Your task to perform on an android device: Open Chrome and go to settings Image 0: 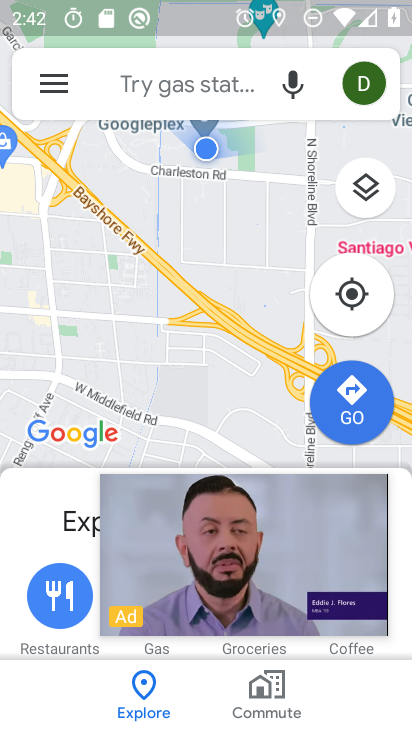
Step 0: click (333, 514)
Your task to perform on an android device: Open Chrome and go to settings Image 1: 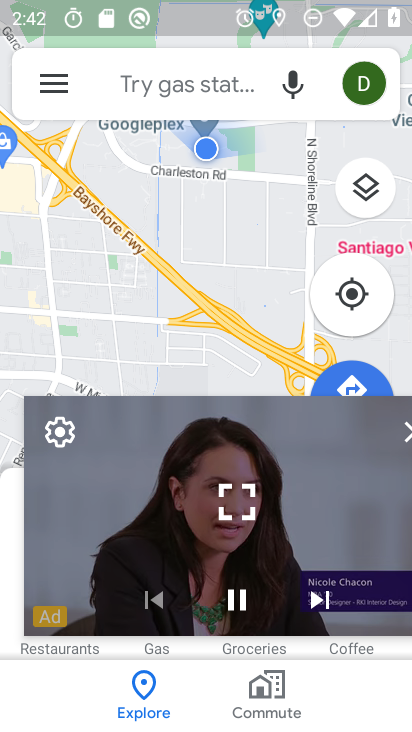
Step 1: click (405, 428)
Your task to perform on an android device: Open Chrome and go to settings Image 2: 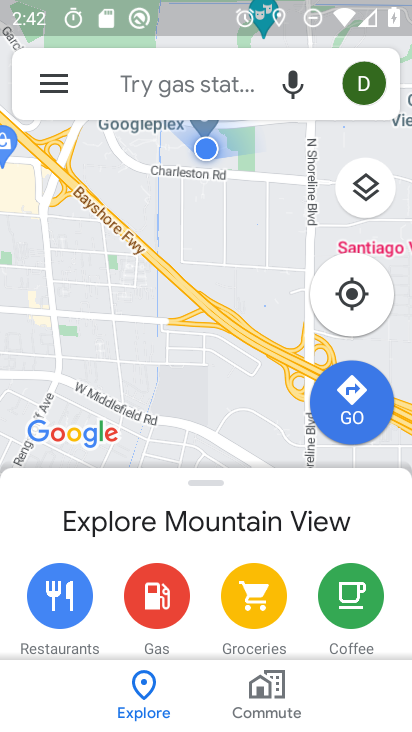
Step 2: press home button
Your task to perform on an android device: Open Chrome and go to settings Image 3: 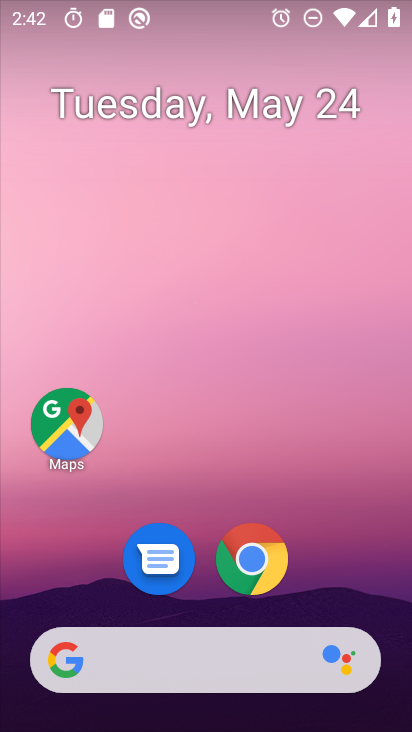
Step 3: click (246, 545)
Your task to perform on an android device: Open Chrome and go to settings Image 4: 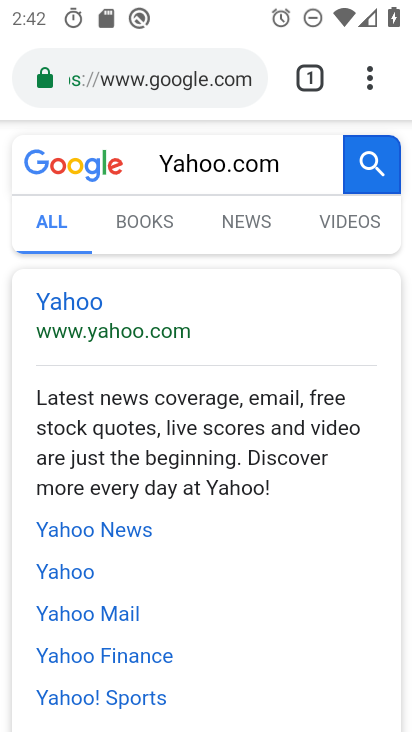
Step 4: click (369, 76)
Your task to perform on an android device: Open Chrome and go to settings Image 5: 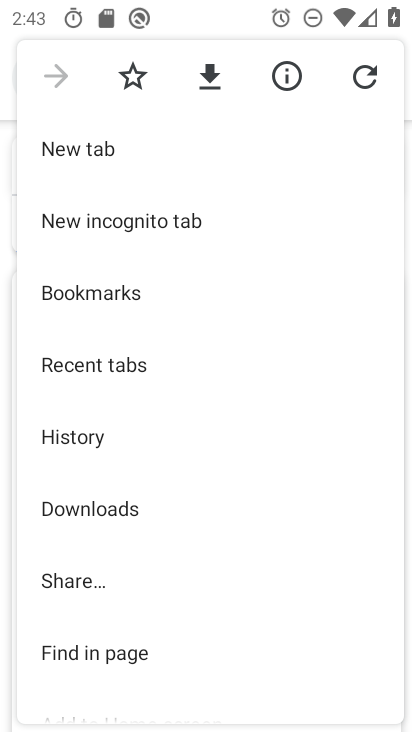
Step 5: drag from (248, 666) to (235, 321)
Your task to perform on an android device: Open Chrome and go to settings Image 6: 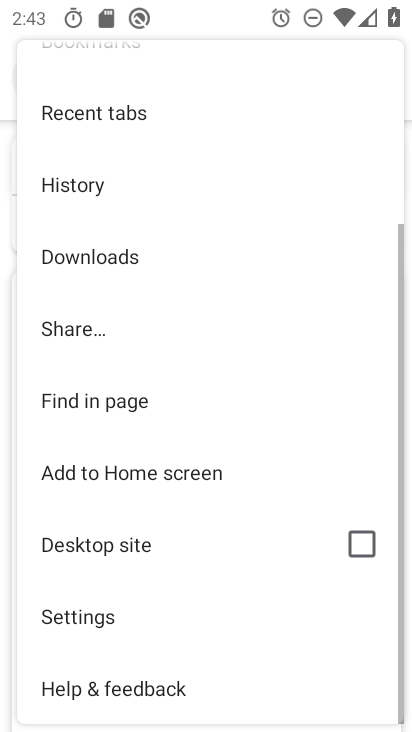
Step 6: click (98, 614)
Your task to perform on an android device: Open Chrome and go to settings Image 7: 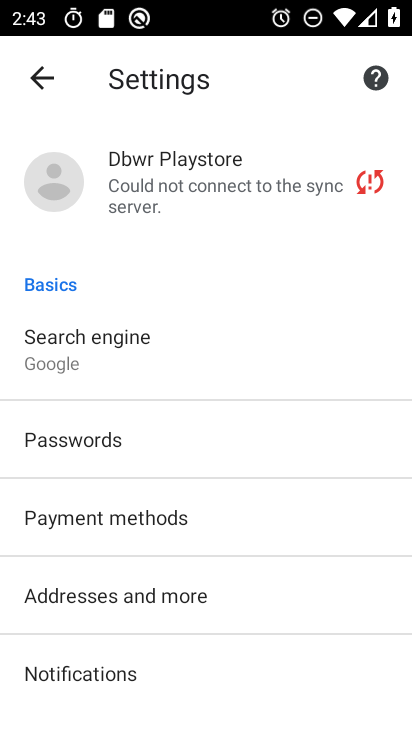
Step 7: drag from (244, 681) to (272, 387)
Your task to perform on an android device: Open Chrome and go to settings Image 8: 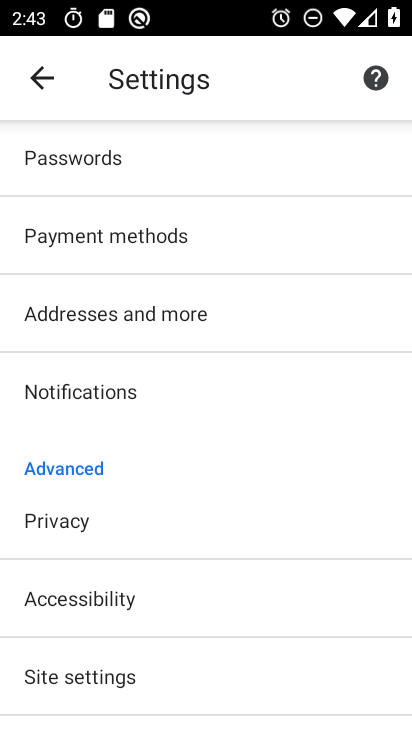
Step 8: click (68, 678)
Your task to perform on an android device: Open Chrome and go to settings Image 9: 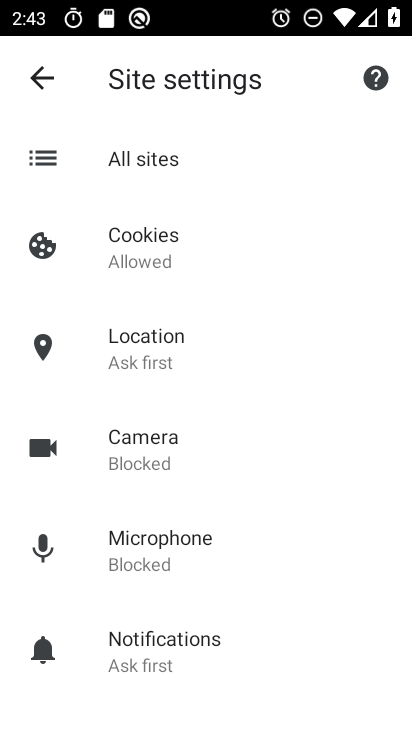
Step 9: click (53, 76)
Your task to perform on an android device: Open Chrome and go to settings Image 10: 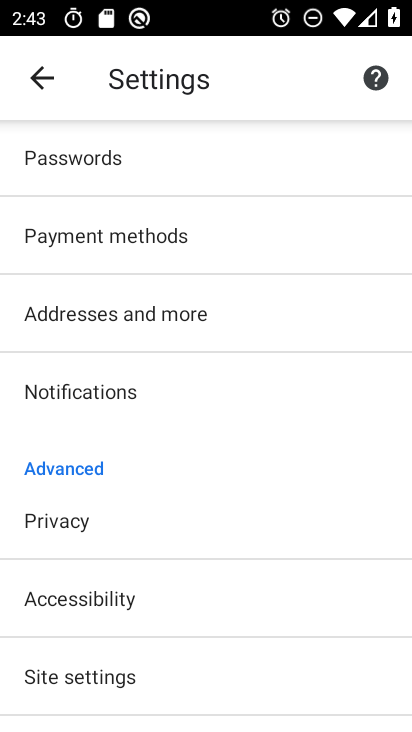
Step 10: task complete